Your task to perform on an android device: turn off location Image 0: 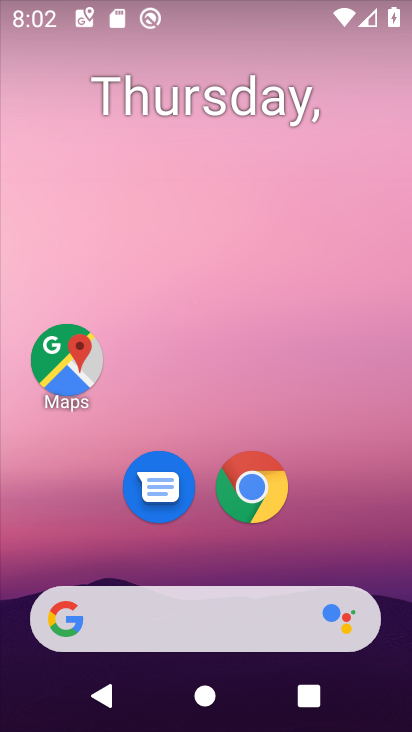
Step 0: drag from (167, 560) to (281, 116)
Your task to perform on an android device: turn off location Image 1: 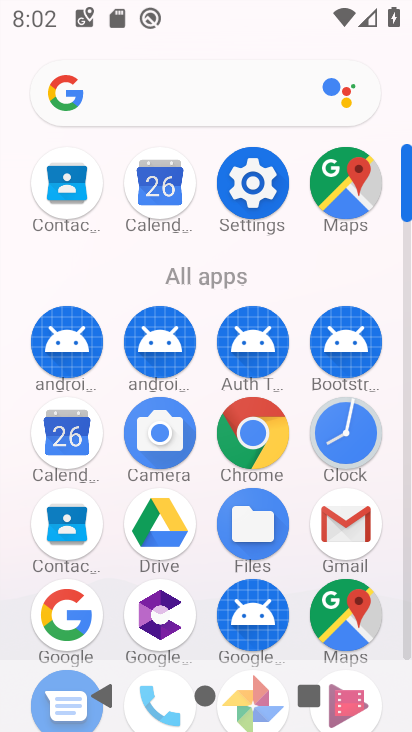
Step 1: click (265, 186)
Your task to perform on an android device: turn off location Image 2: 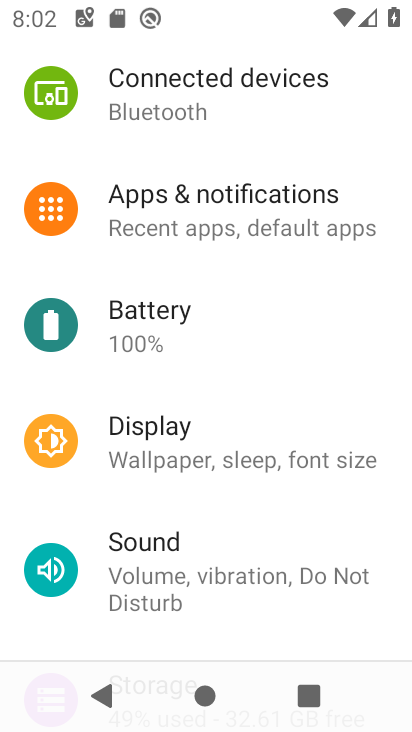
Step 2: drag from (197, 582) to (267, 177)
Your task to perform on an android device: turn off location Image 3: 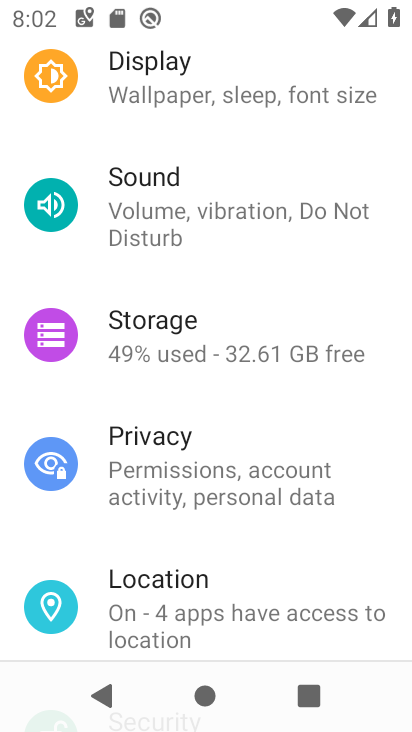
Step 3: click (186, 567)
Your task to perform on an android device: turn off location Image 4: 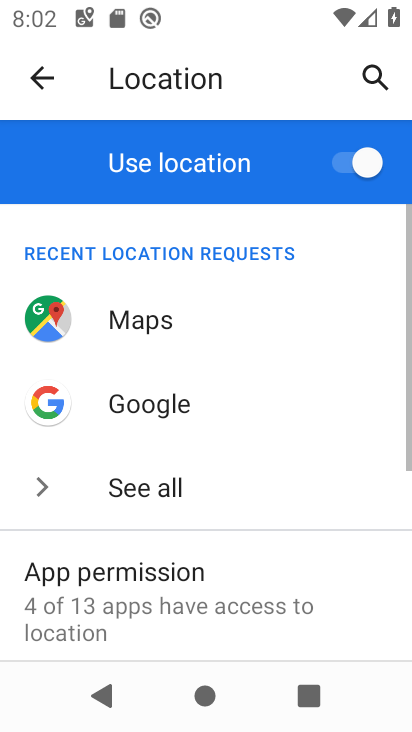
Step 4: click (356, 175)
Your task to perform on an android device: turn off location Image 5: 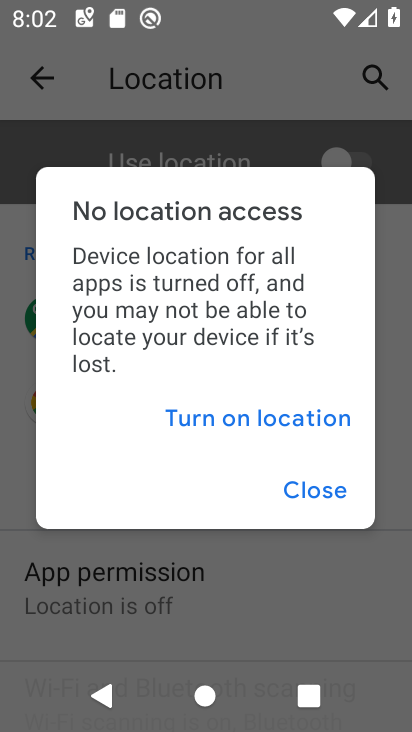
Step 5: task complete